Your task to perform on an android device: Go to accessibility settings Image 0: 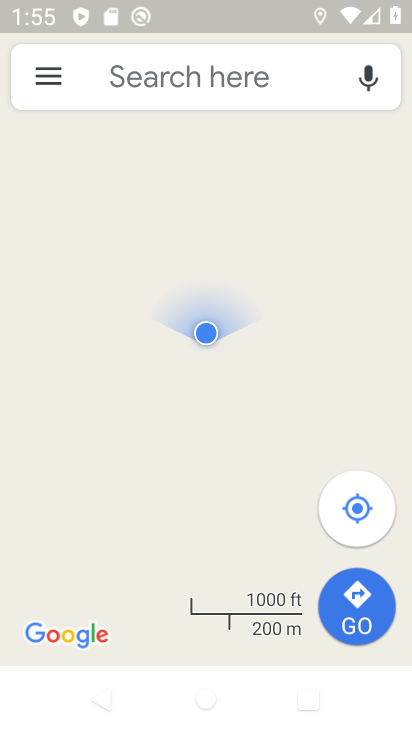
Step 0: press home button
Your task to perform on an android device: Go to accessibility settings Image 1: 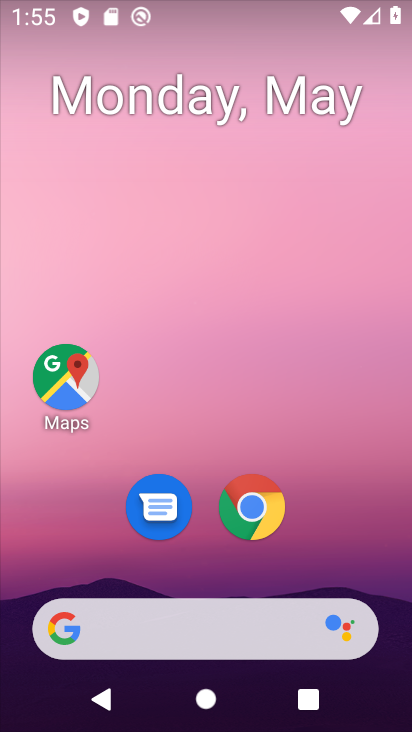
Step 1: drag from (199, 565) to (232, 108)
Your task to perform on an android device: Go to accessibility settings Image 2: 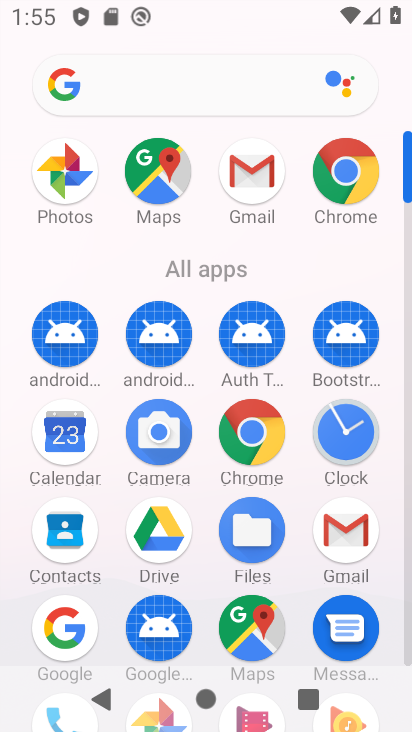
Step 2: drag from (196, 625) to (225, 180)
Your task to perform on an android device: Go to accessibility settings Image 3: 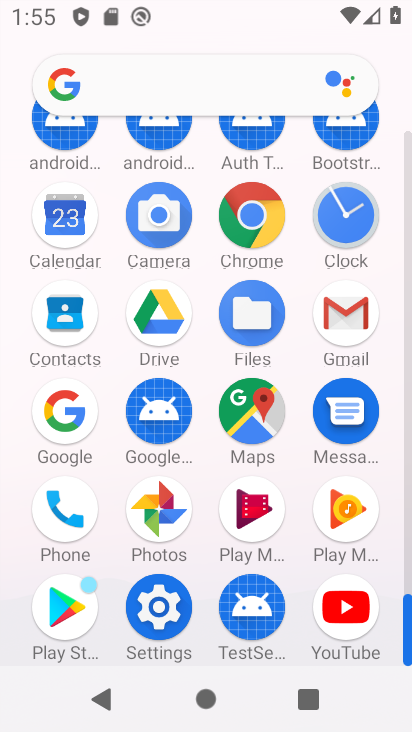
Step 3: click (162, 601)
Your task to perform on an android device: Go to accessibility settings Image 4: 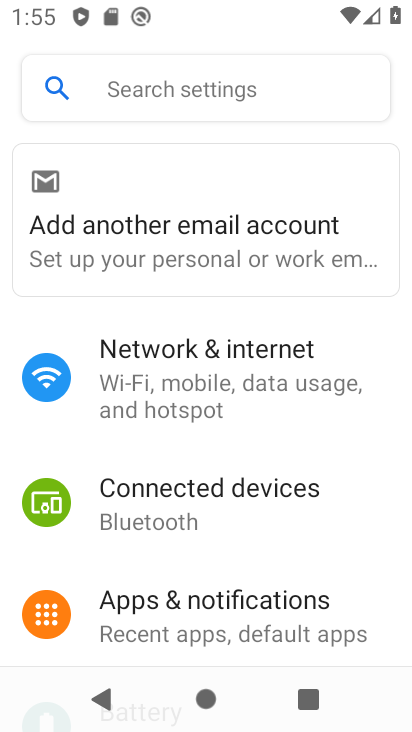
Step 4: drag from (210, 576) to (262, 100)
Your task to perform on an android device: Go to accessibility settings Image 5: 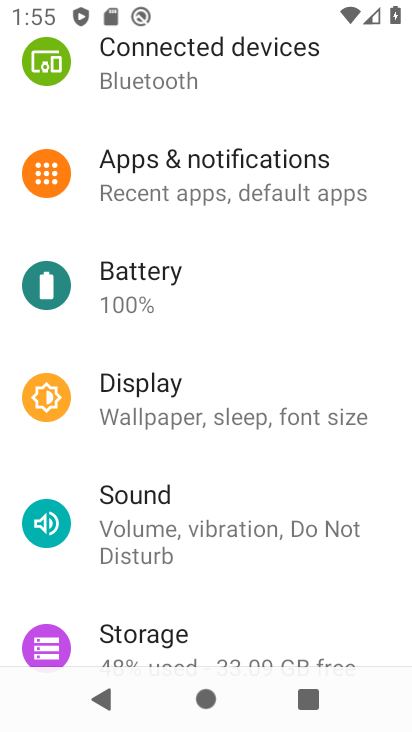
Step 5: drag from (224, 653) to (256, 100)
Your task to perform on an android device: Go to accessibility settings Image 6: 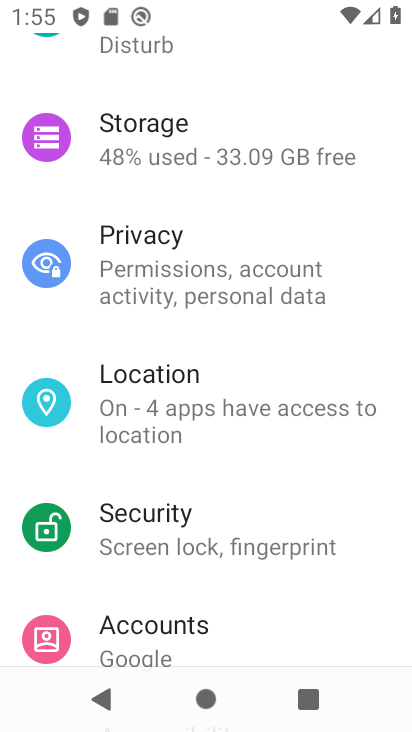
Step 6: drag from (193, 647) to (283, 46)
Your task to perform on an android device: Go to accessibility settings Image 7: 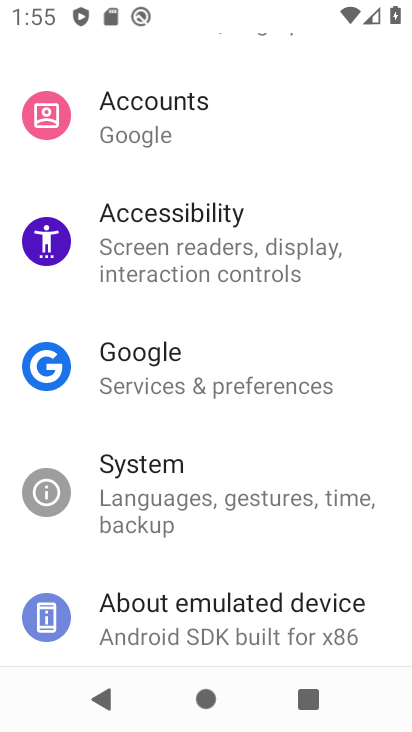
Step 7: click (247, 257)
Your task to perform on an android device: Go to accessibility settings Image 8: 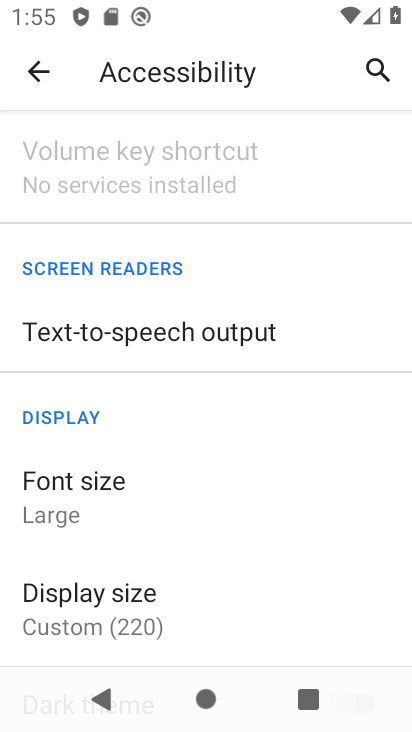
Step 8: task complete